Your task to perform on an android device: empty trash in google photos Image 0: 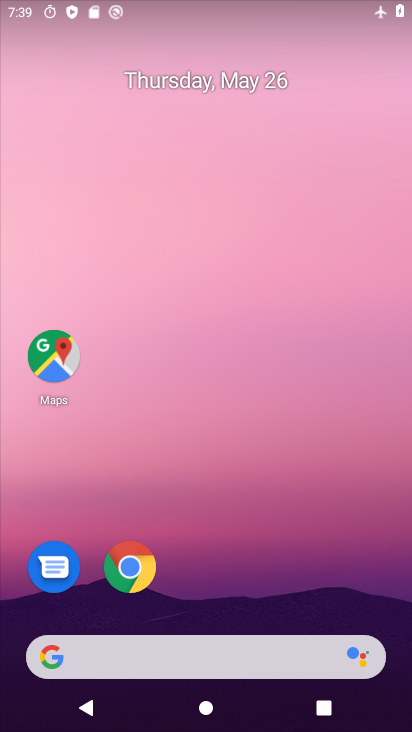
Step 0: drag from (132, 651) to (312, 84)
Your task to perform on an android device: empty trash in google photos Image 1: 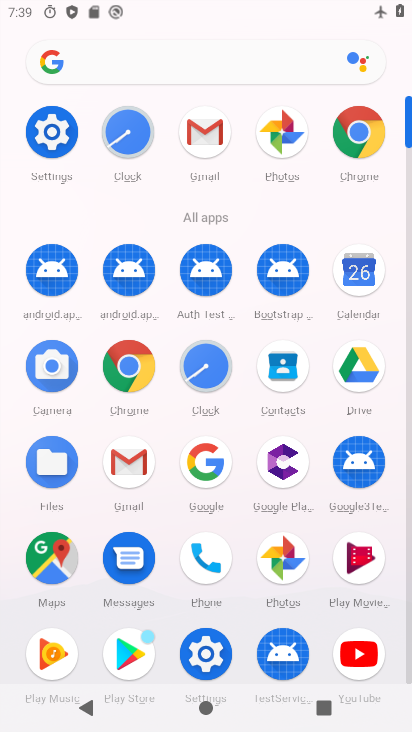
Step 1: click (283, 145)
Your task to perform on an android device: empty trash in google photos Image 2: 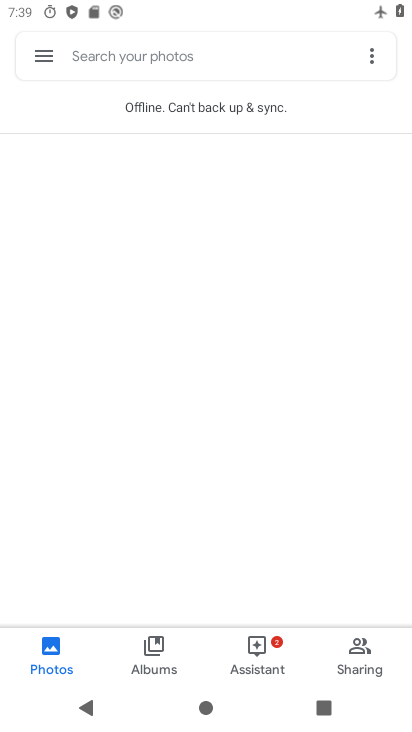
Step 2: click (49, 45)
Your task to perform on an android device: empty trash in google photos Image 3: 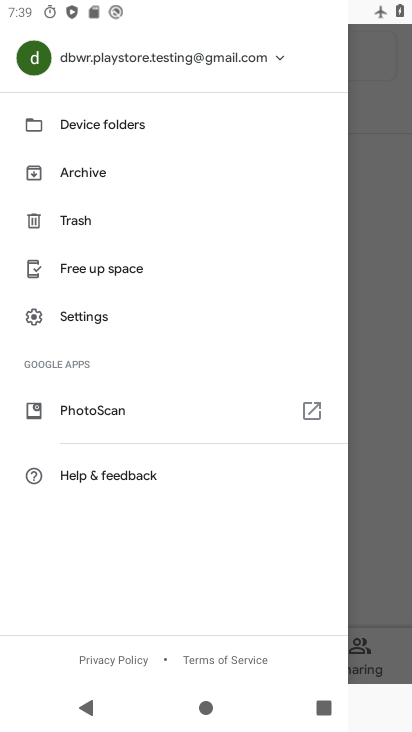
Step 3: click (82, 213)
Your task to perform on an android device: empty trash in google photos Image 4: 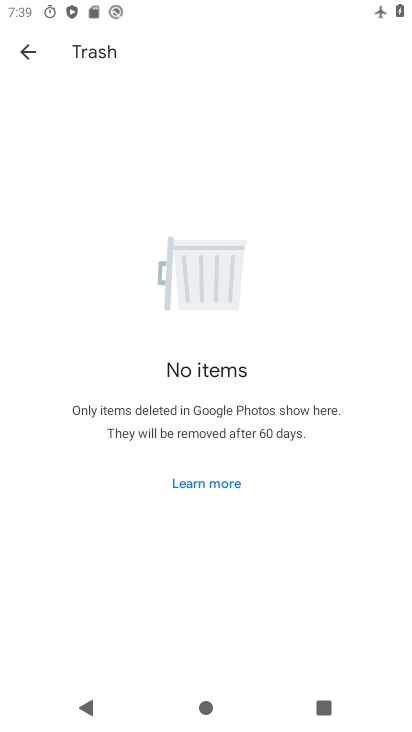
Step 4: task complete